Your task to perform on an android device: visit the assistant section in the google photos Image 0: 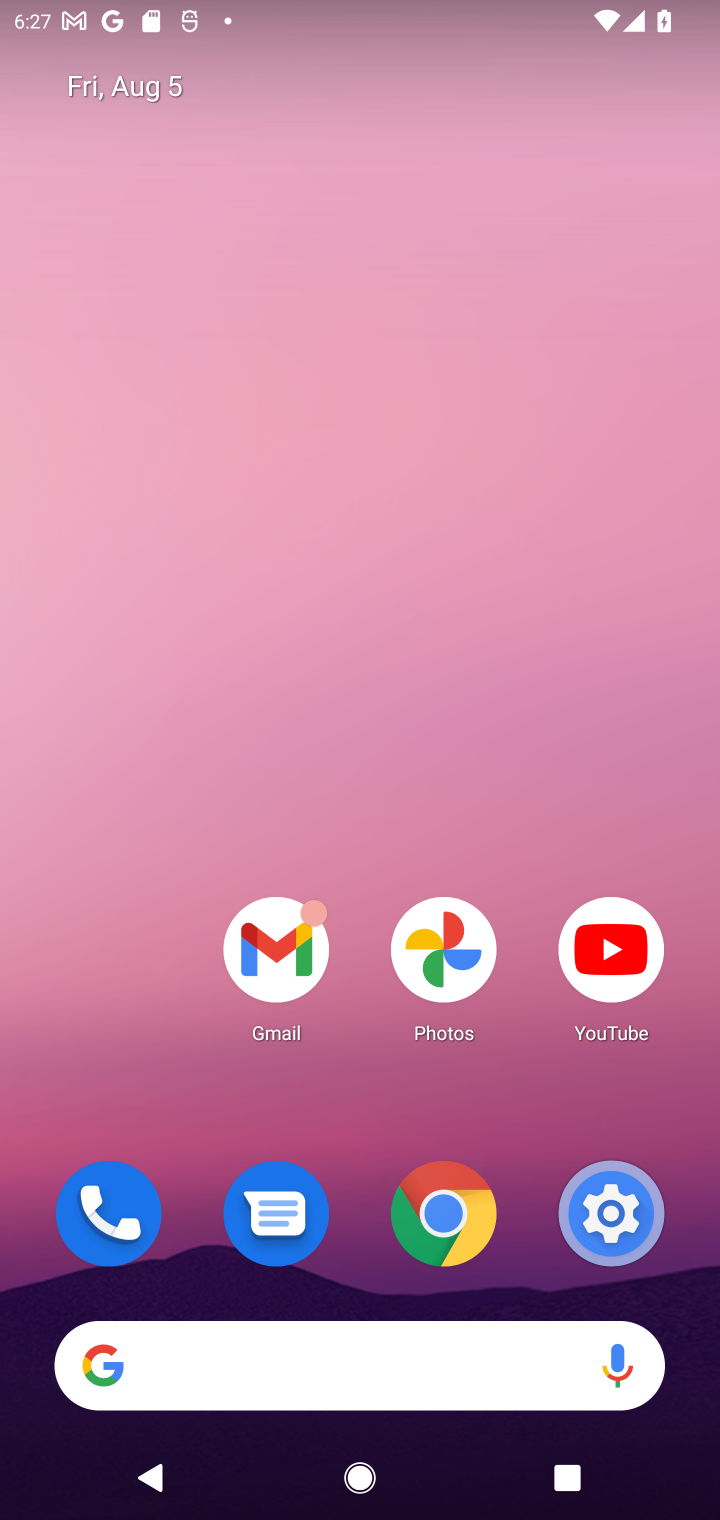
Step 0: click (416, 943)
Your task to perform on an android device: visit the assistant section in the google photos Image 1: 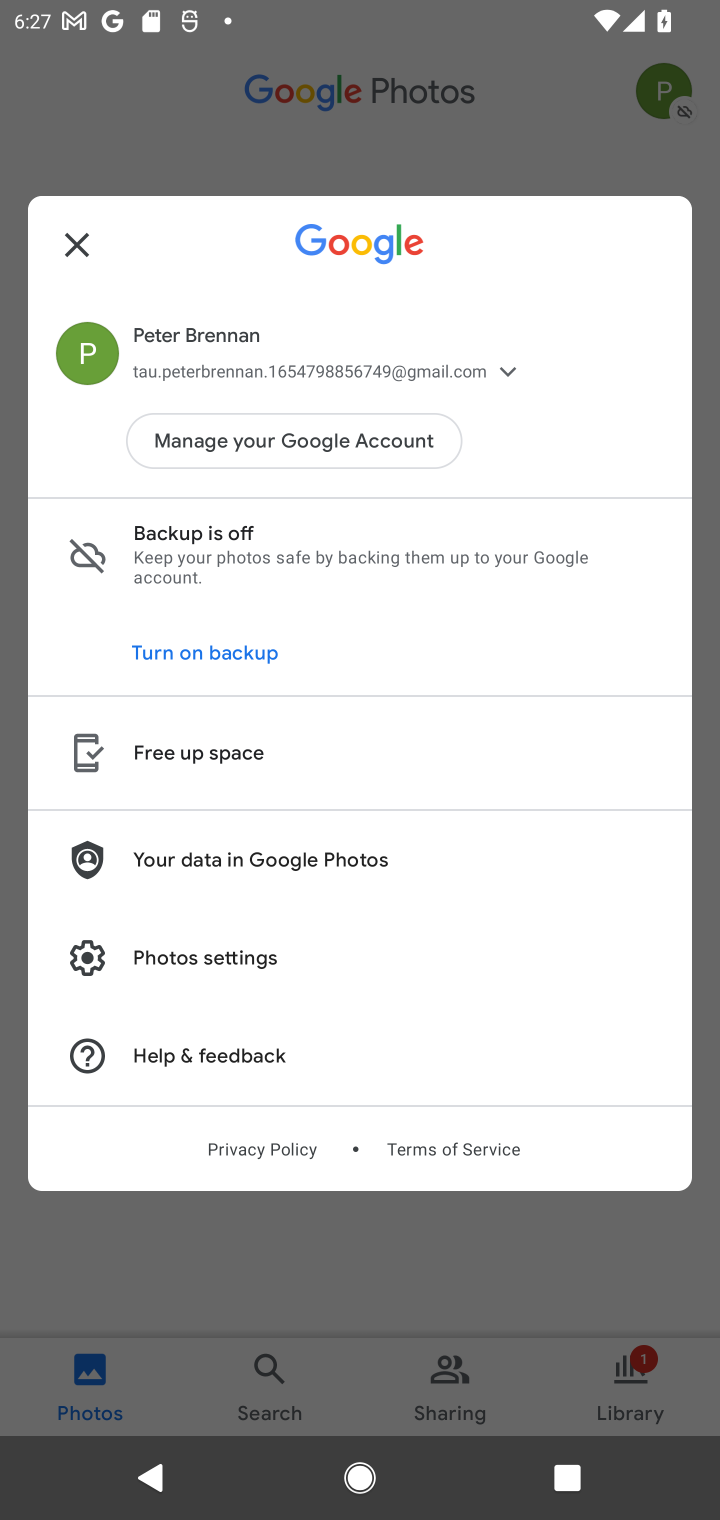
Step 1: click (52, 281)
Your task to perform on an android device: visit the assistant section in the google photos Image 2: 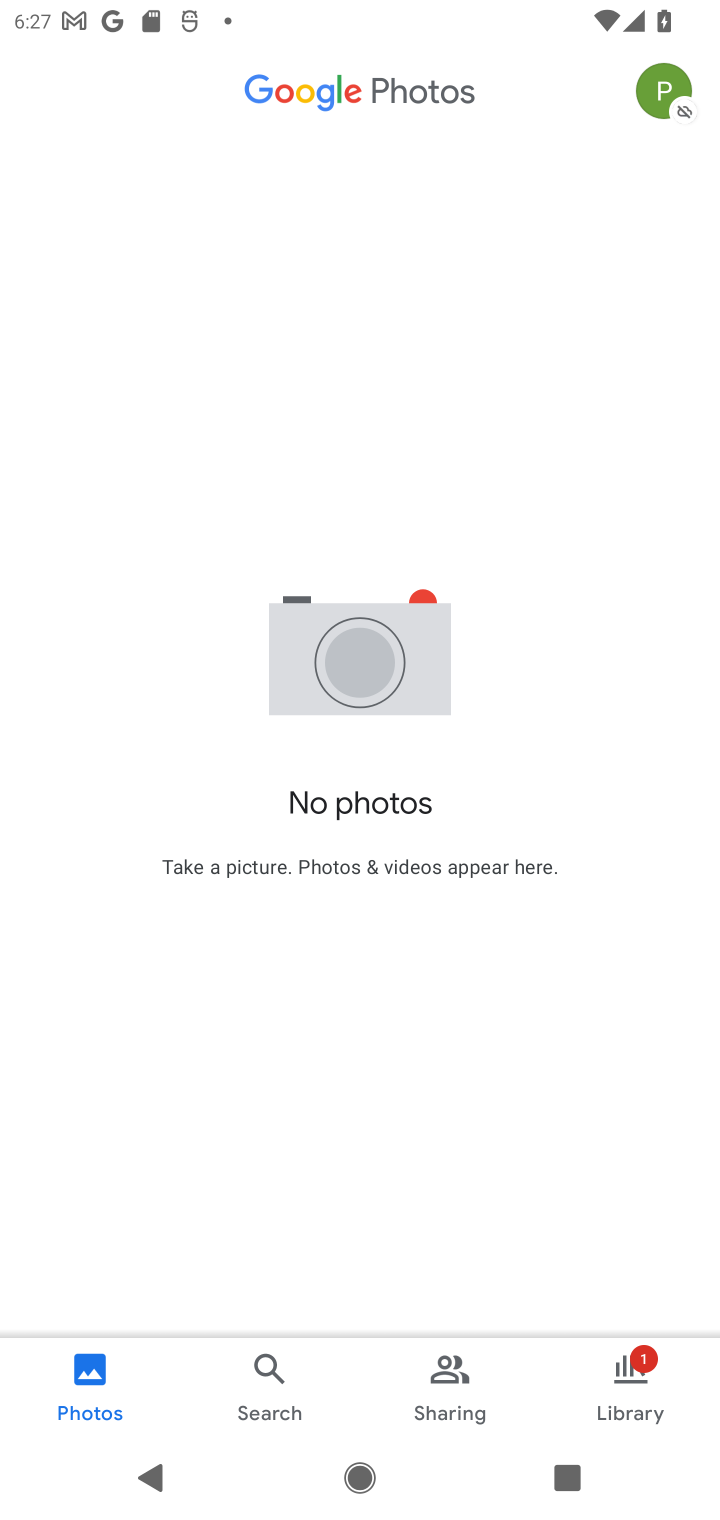
Step 2: click (642, 61)
Your task to perform on an android device: visit the assistant section in the google photos Image 3: 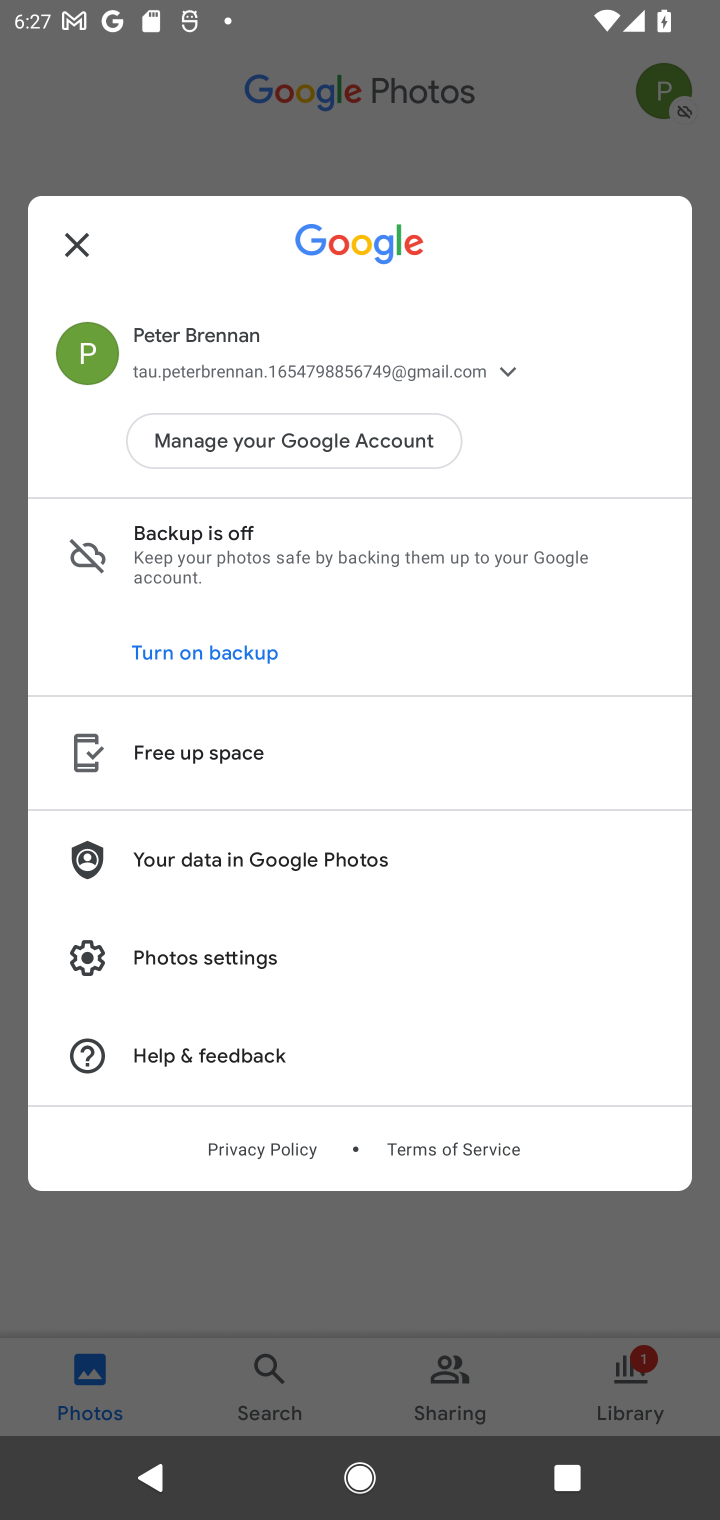
Step 3: task complete